Your task to perform on an android device: Open eBay Image 0: 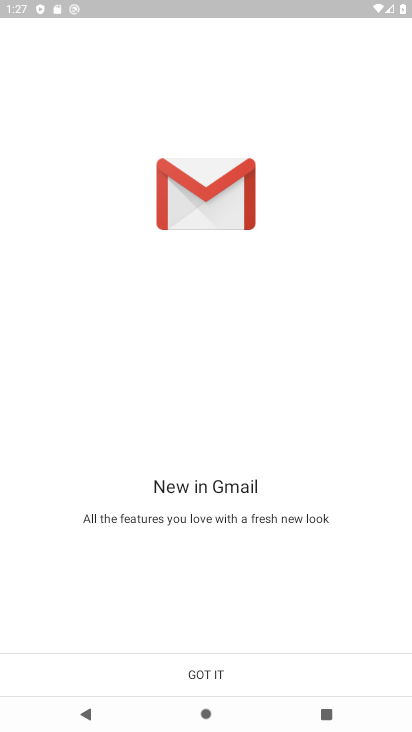
Step 0: press home button
Your task to perform on an android device: Open eBay Image 1: 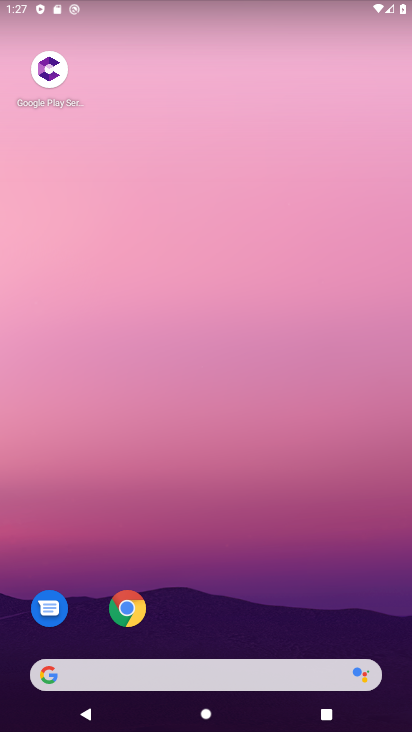
Step 1: drag from (230, 598) to (218, 90)
Your task to perform on an android device: Open eBay Image 2: 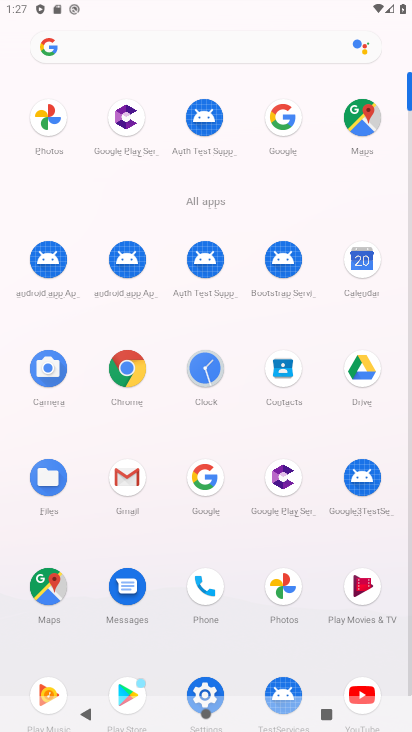
Step 2: click (203, 488)
Your task to perform on an android device: Open eBay Image 3: 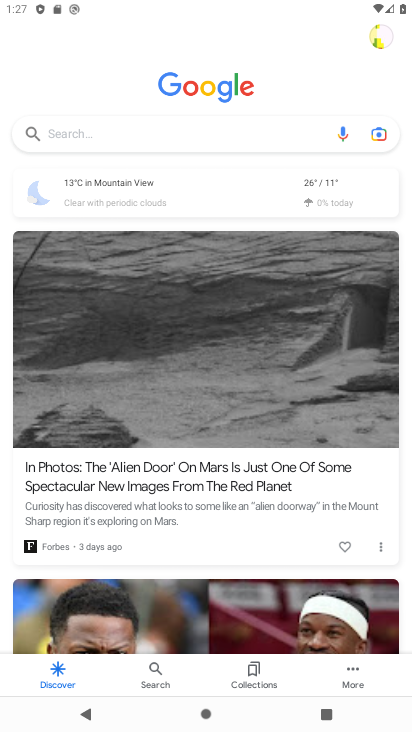
Step 3: click (200, 137)
Your task to perform on an android device: Open eBay Image 4: 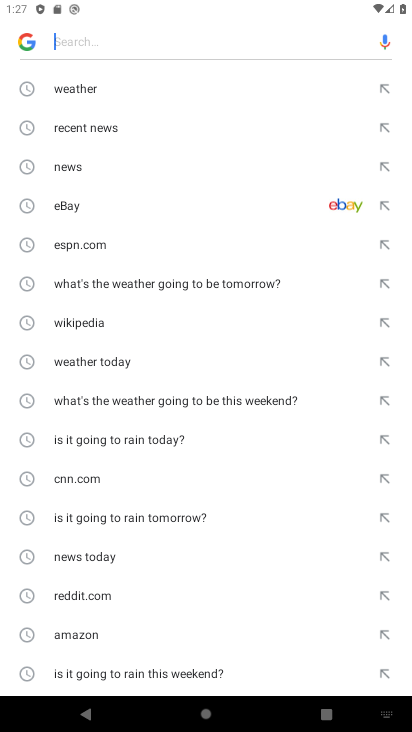
Step 4: click (303, 207)
Your task to perform on an android device: Open eBay Image 5: 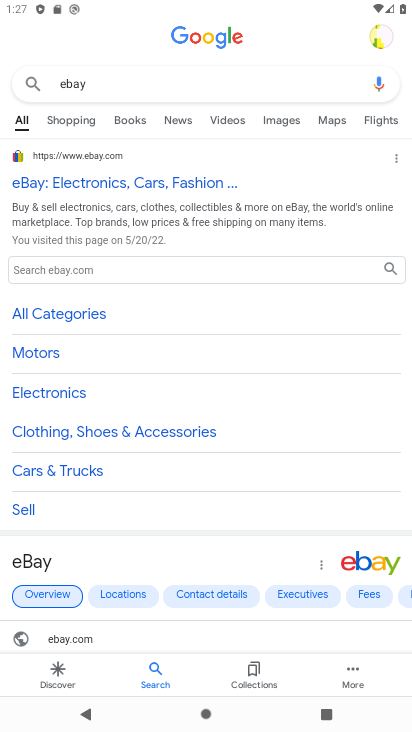
Step 5: task complete